Your task to perform on an android device: Check the weather Image 0: 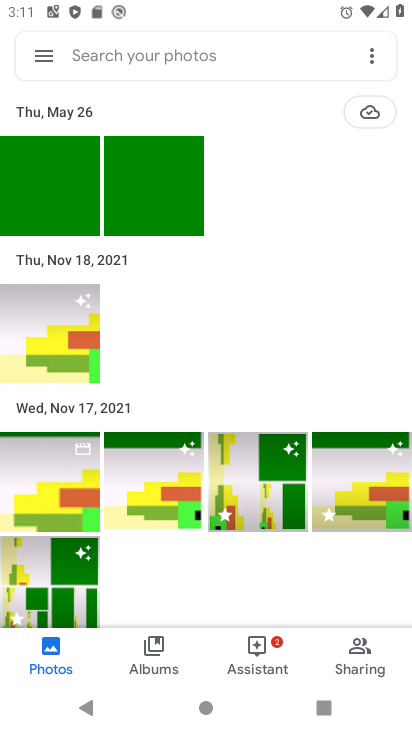
Step 0: press home button
Your task to perform on an android device: Check the weather Image 1: 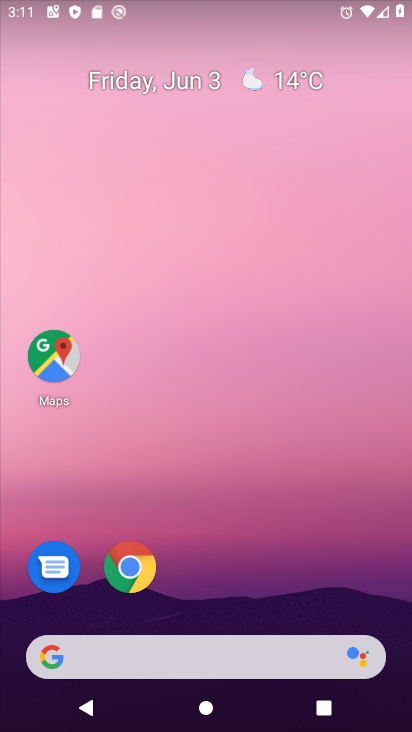
Step 1: click (227, 653)
Your task to perform on an android device: Check the weather Image 2: 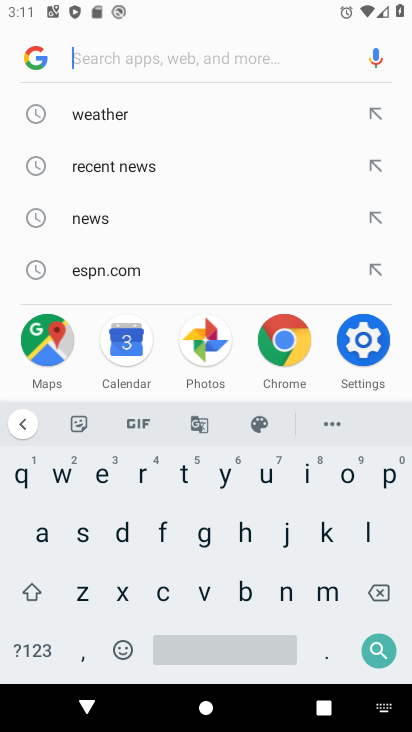
Step 2: click (138, 118)
Your task to perform on an android device: Check the weather Image 3: 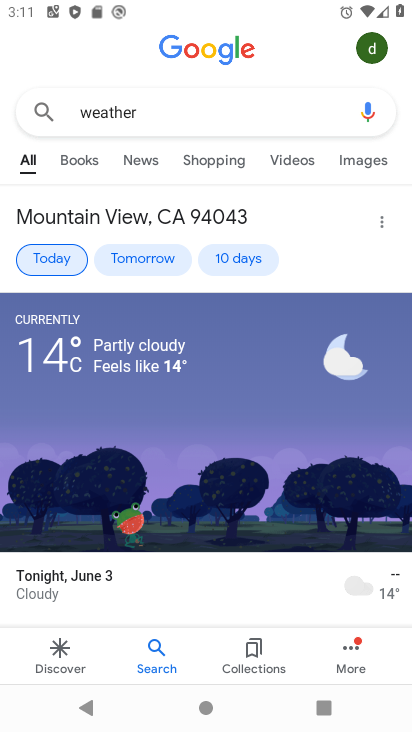
Step 3: task complete